Your task to perform on an android device: Go to location settings Image 0: 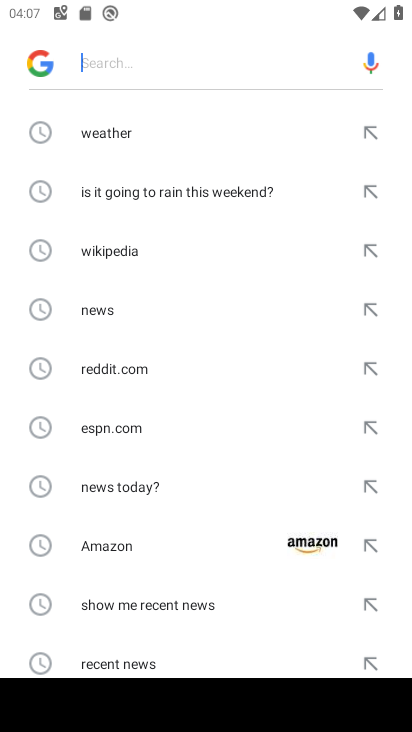
Step 0: press home button
Your task to perform on an android device: Go to location settings Image 1: 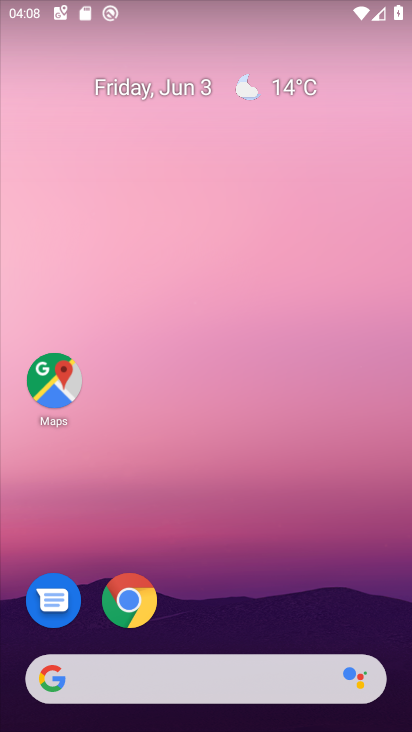
Step 1: drag from (279, 563) to (194, 155)
Your task to perform on an android device: Go to location settings Image 2: 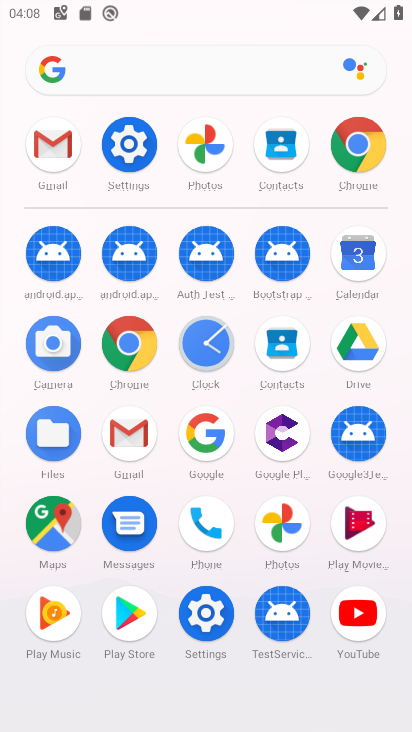
Step 2: click (133, 153)
Your task to perform on an android device: Go to location settings Image 3: 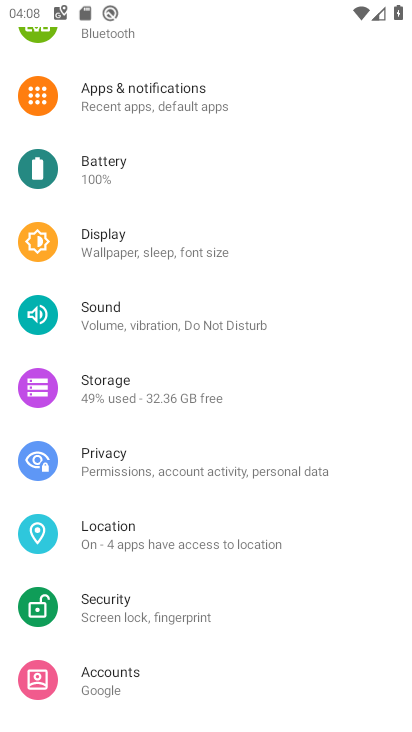
Step 3: drag from (175, 187) to (201, 444)
Your task to perform on an android device: Go to location settings Image 4: 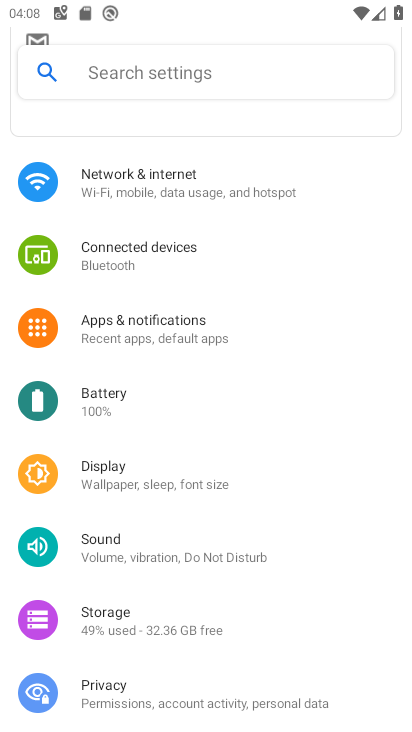
Step 4: drag from (201, 444) to (229, 166)
Your task to perform on an android device: Go to location settings Image 5: 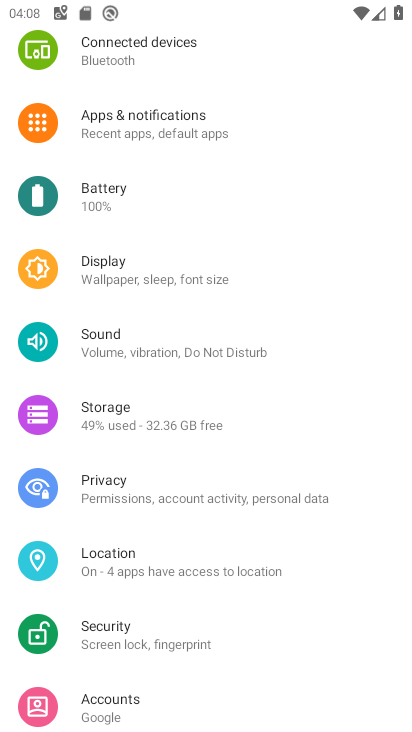
Step 5: click (150, 555)
Your task to perform on an android device: Go to location settings Image 6: 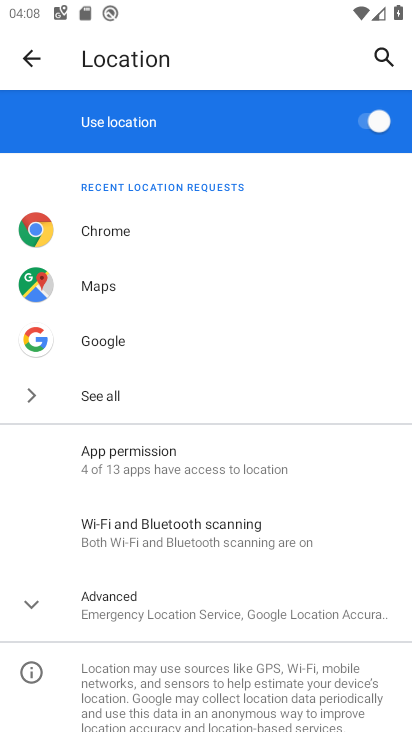
Step 6: task complete